Your task to perform on an android device: What is the news today? Image 0: 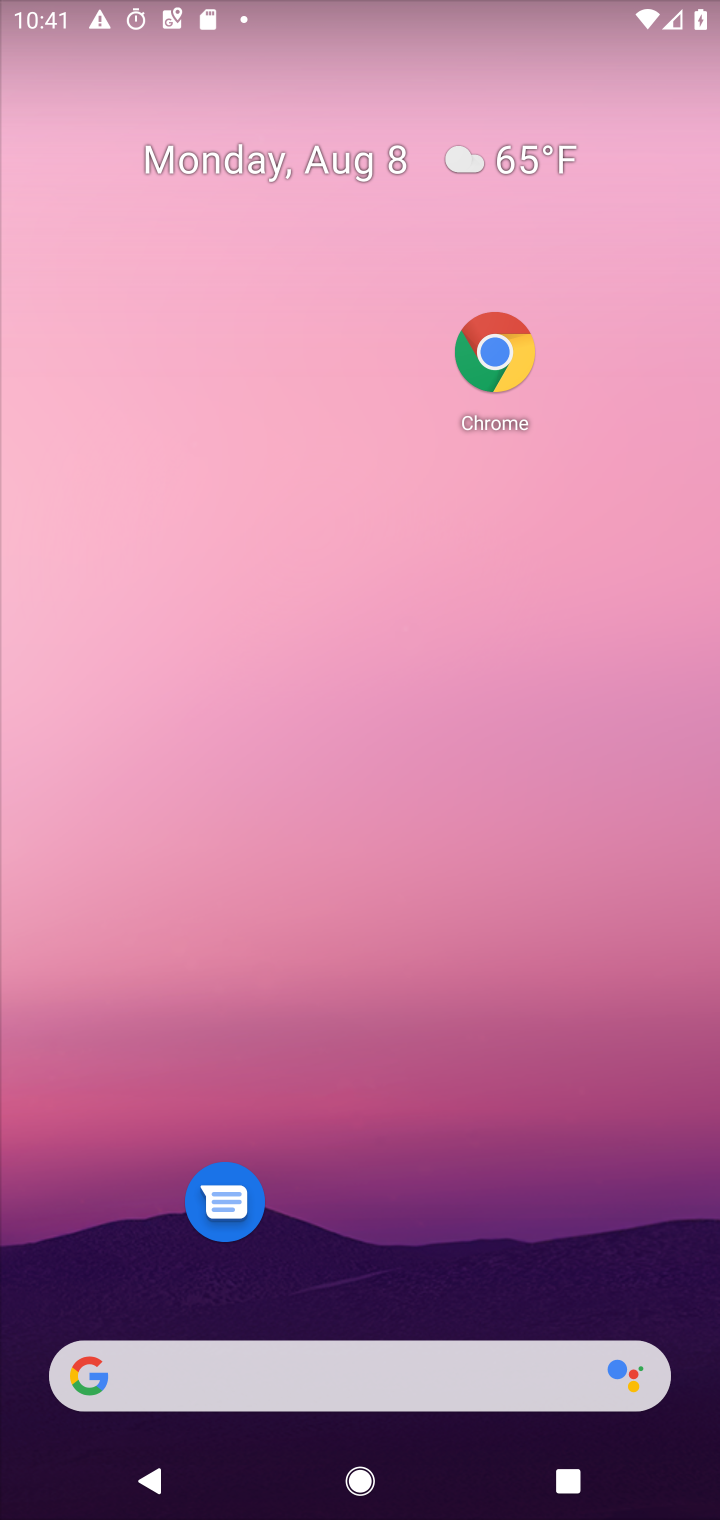
Step 0: drag from (499, 1146) to (580, 499)
Your task to perform on an android device: What is the news today? Image 1: 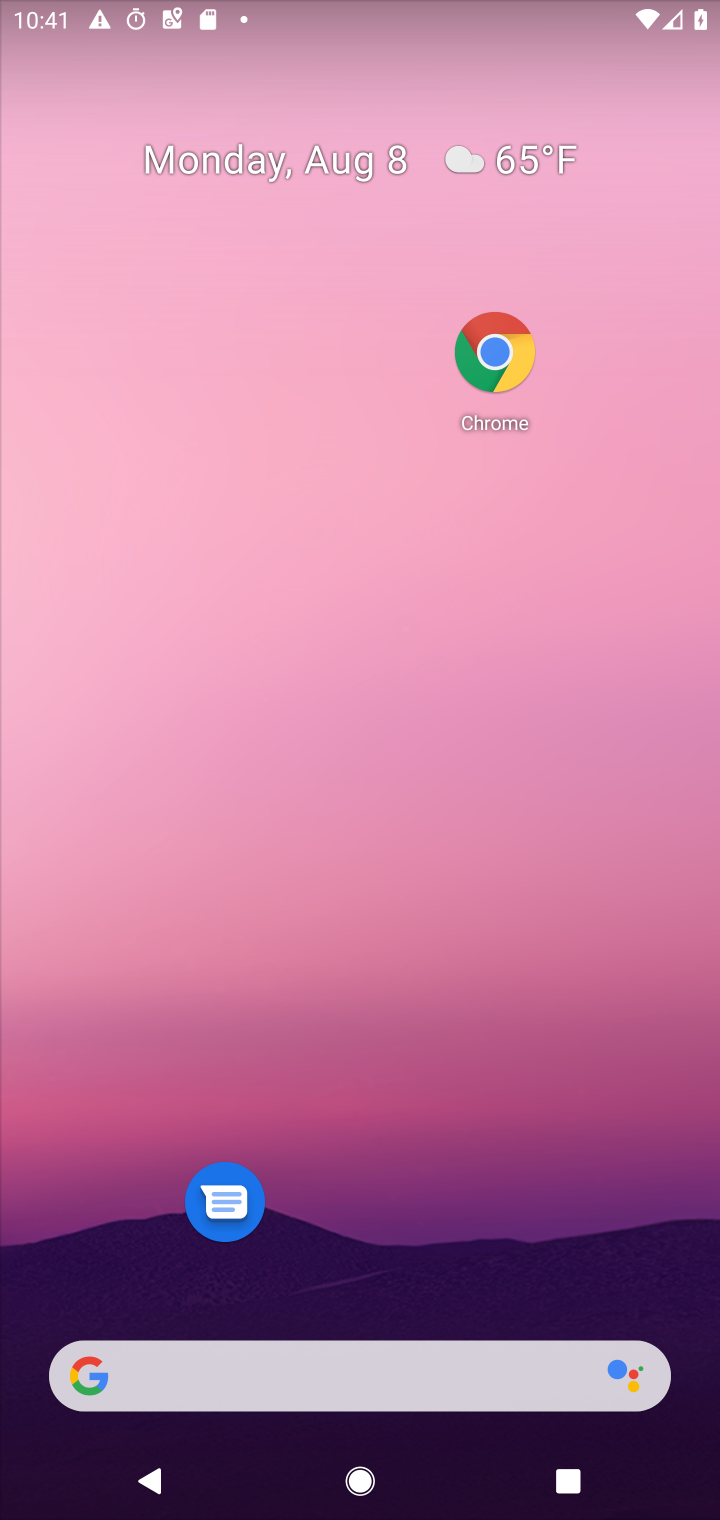
Step 1: drag from (410, 1294) to (361, 223)
Your task to perform on an android device: What is the news today? Image 2: 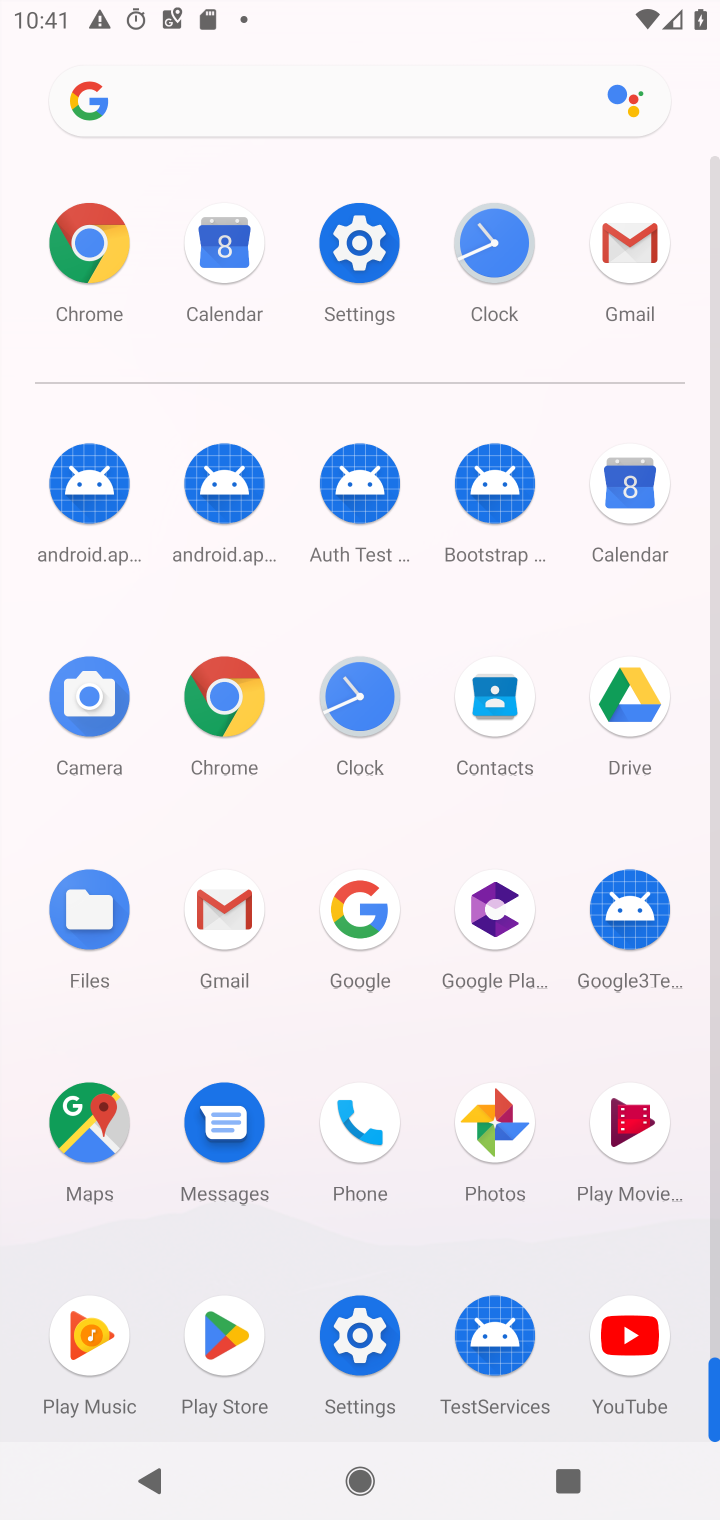
Step 2: click (363, 943)
Your task to perform on an android device: What is the news today? Image 3: 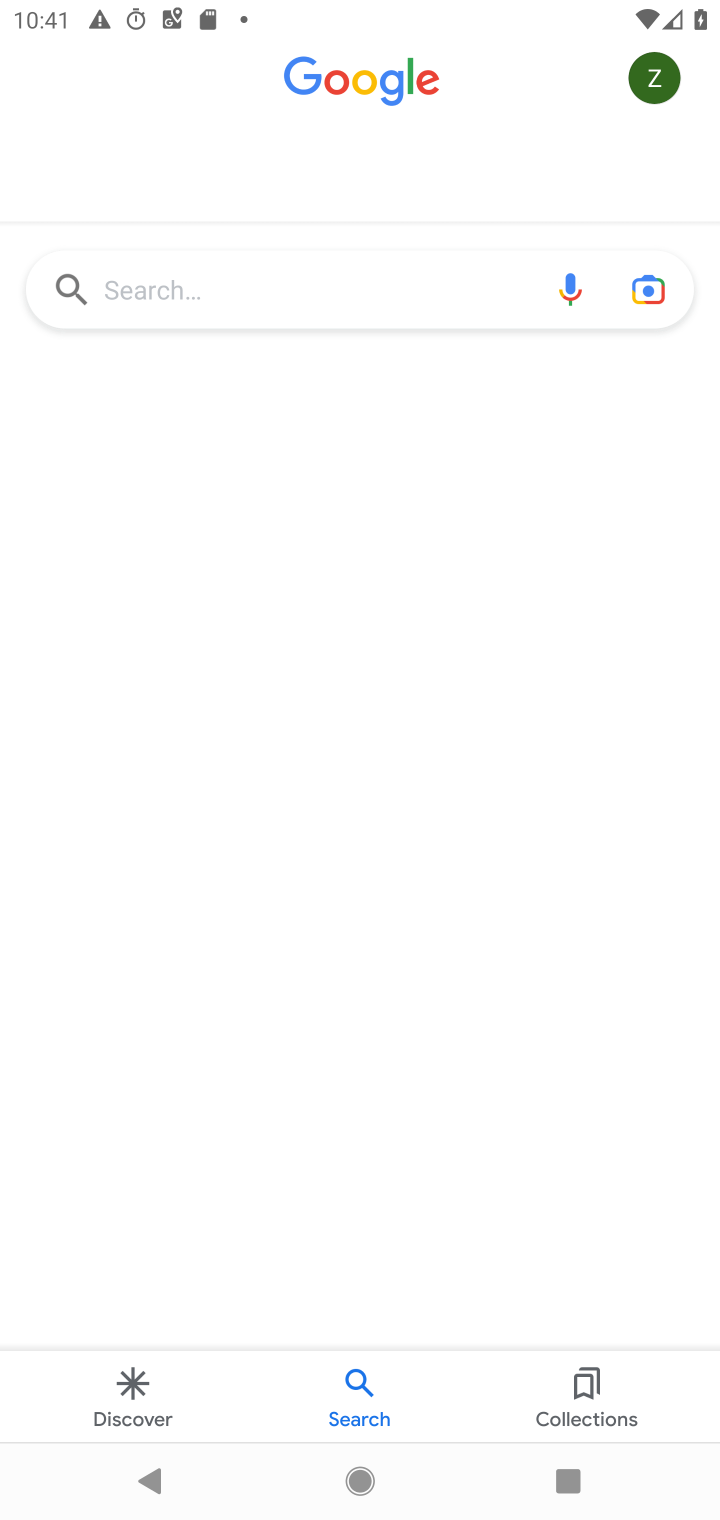
Step 3: click (411, 289)
Your task to perform on an android device: What is the news today? Image 4: 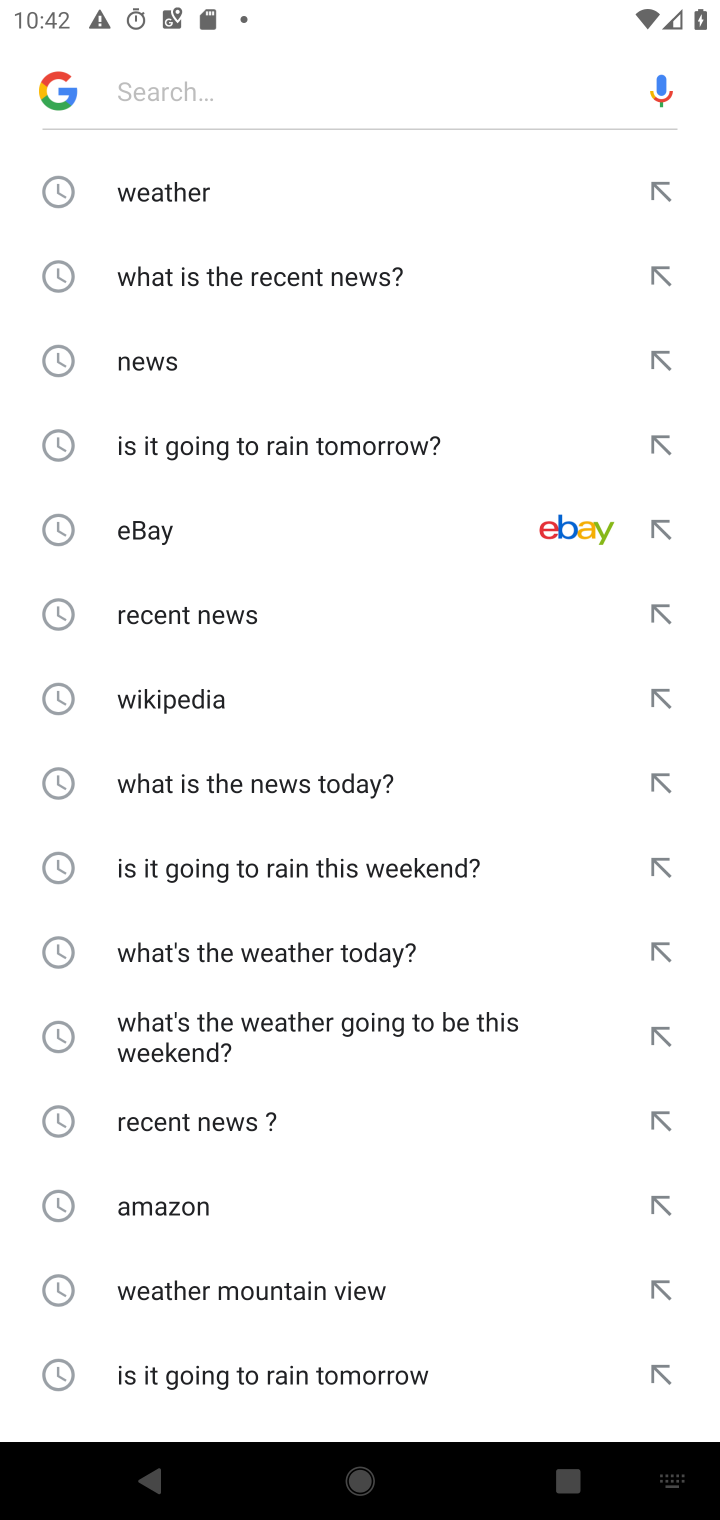
Step 4: click (286, 331)
Your task to perform on an android device: What is the news today? Image 5: 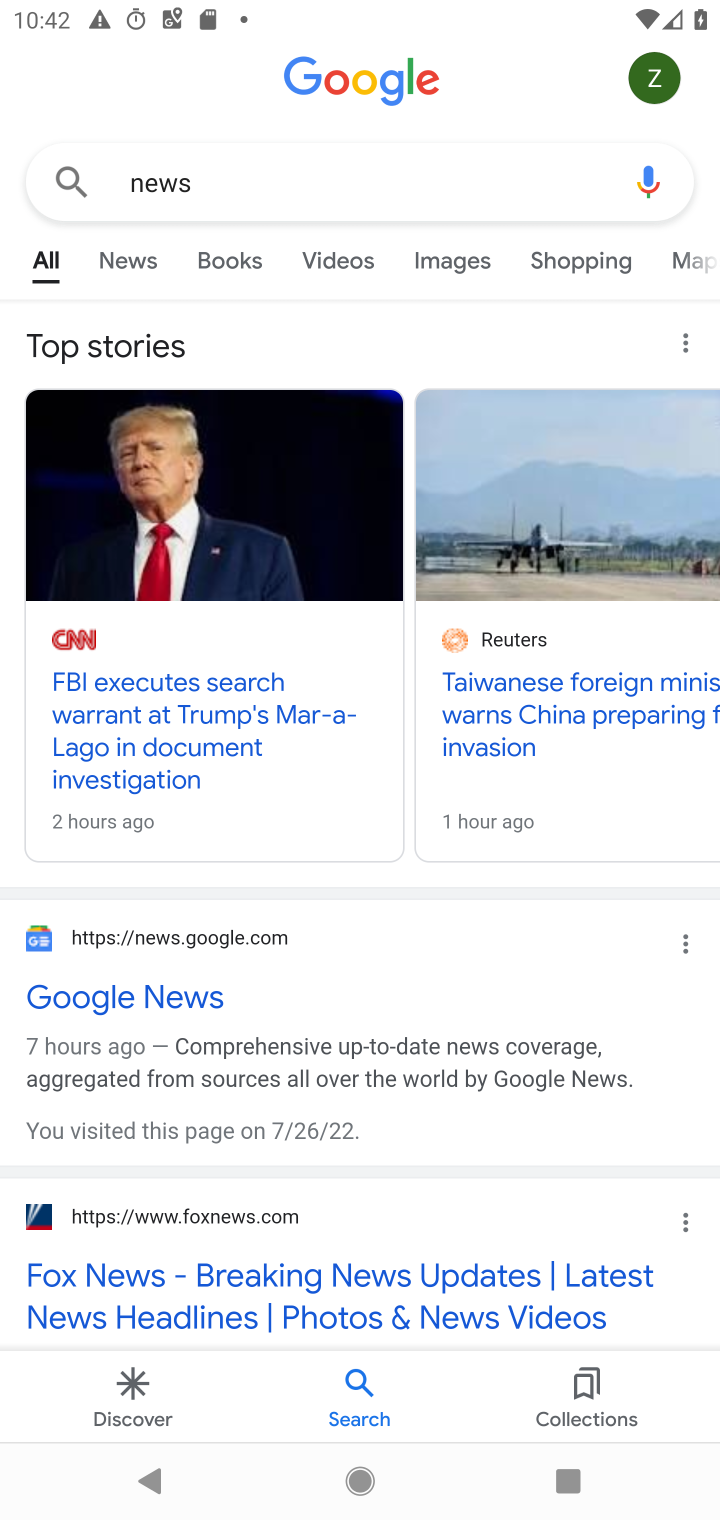
Step 5: task complete